Your task to perform on an android device: turn on the 24-hour format for clock Image 0: 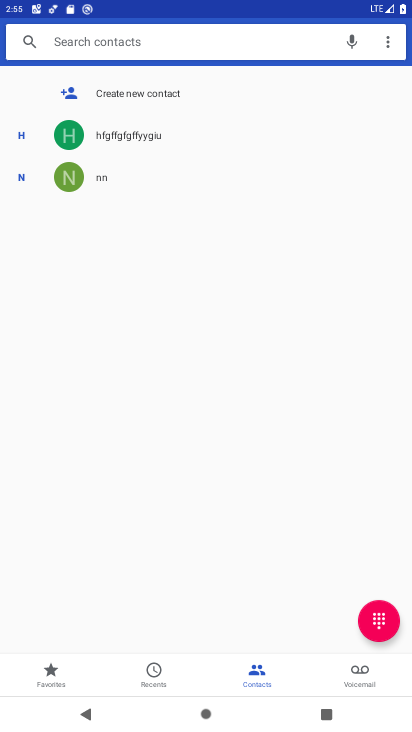
Step 0: press home button
Your task to perform on an android device: turn on the 24-hour format for clock Image 1: 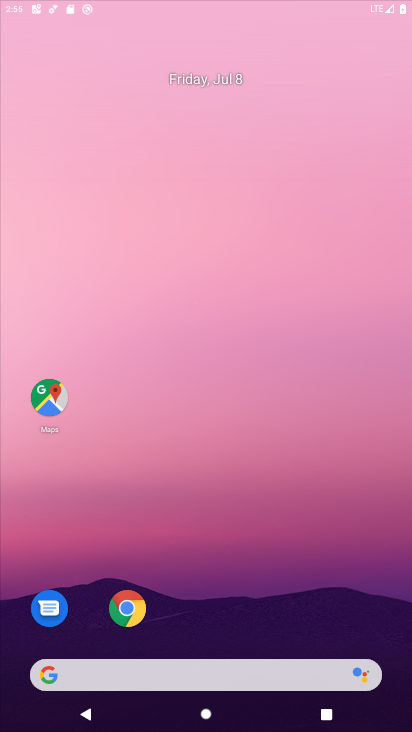
Step 1: drag from (222, 578) to (207, 198)
Your task to perform on an android device: turn on the 24-hour format for clock Image 2: 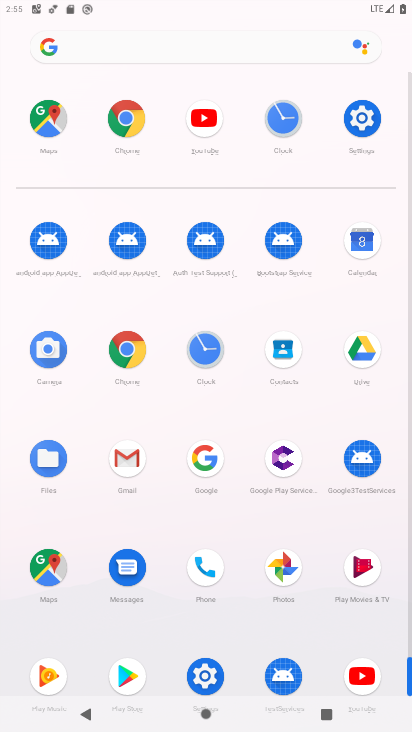
Step 2: click (202, 354)
Your task to perform on an android device: turn on the 24-hour format for clock Image 3: 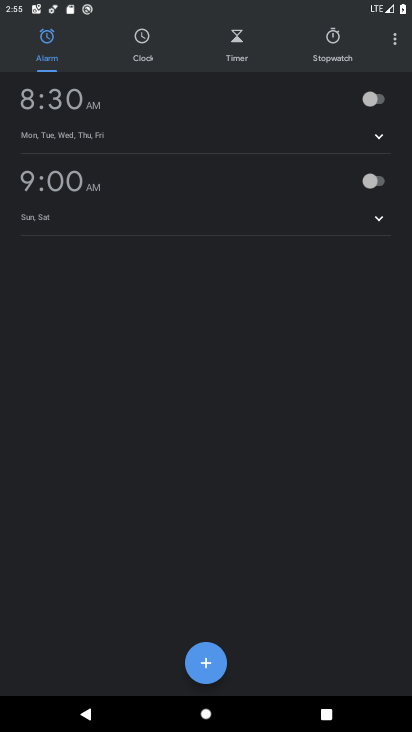
Step 3: click (392, 43)
Your task to perform on an android device: turn on the 24-hour format for clock Image 4: 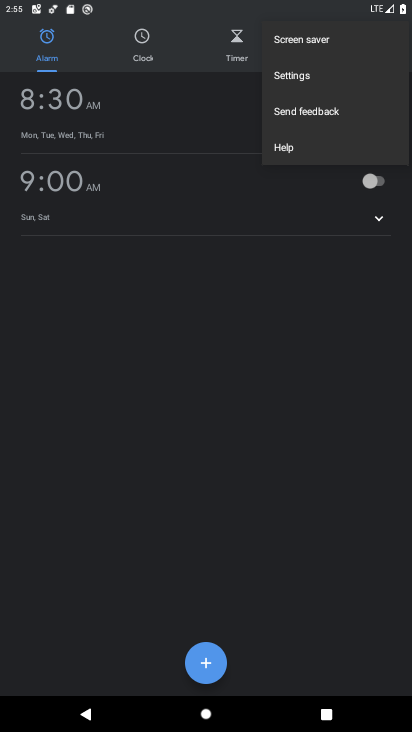
Step 4: click (315, 76)
Your task to perform on an android device: turn on the 24-hour format for clock Image 5: 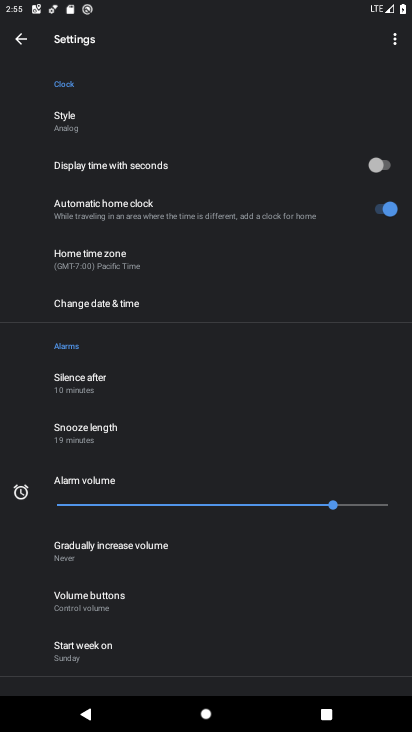
Step 5: click (126, 297)
Your task to perform on an android device: turn on the 24-hour format for clock Image 6: 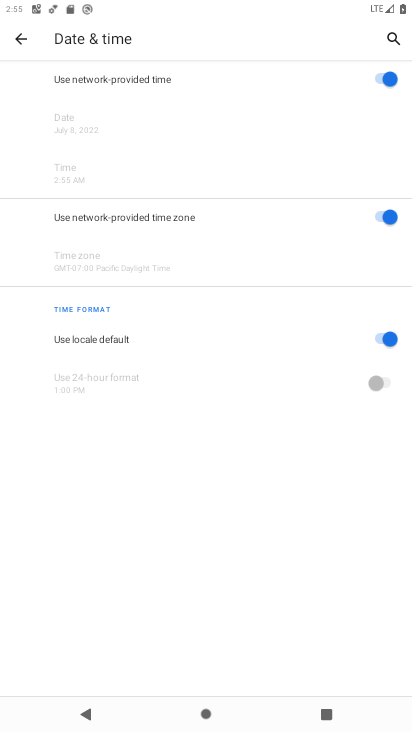
Step 6: click (378, 340)
Your task to perform on an android device: turn on the 24-hour format for clock Image 7: 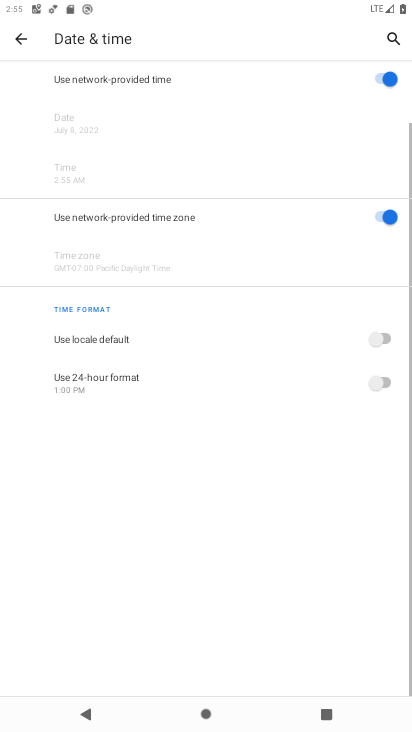
Step 7: click (382, 381)
Your task to perform on an android device: turn on the 24-hour format for clock Image 8: 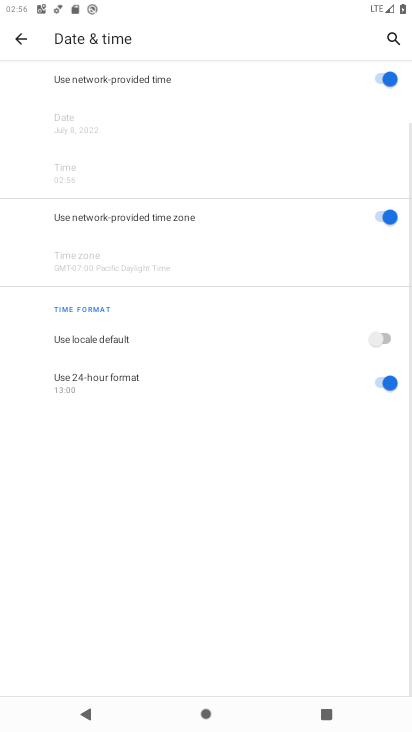
Step 8: task complete